Your task to perform on an android device: open app "Google Keep" Image 0: 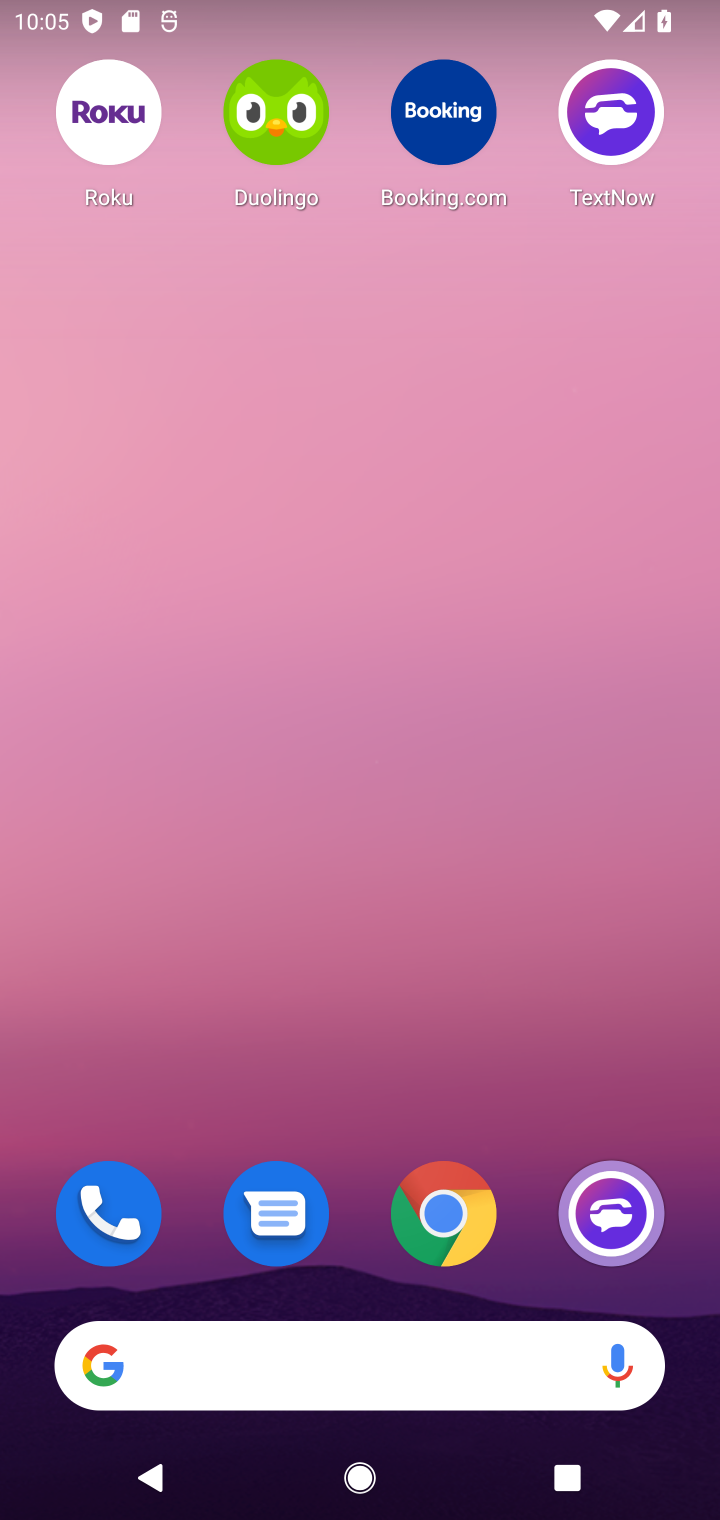
Step 0: drag from (379, 1295) to (451, 4)
Your task to perform on an android device: open app "Google Keep" Image 1: 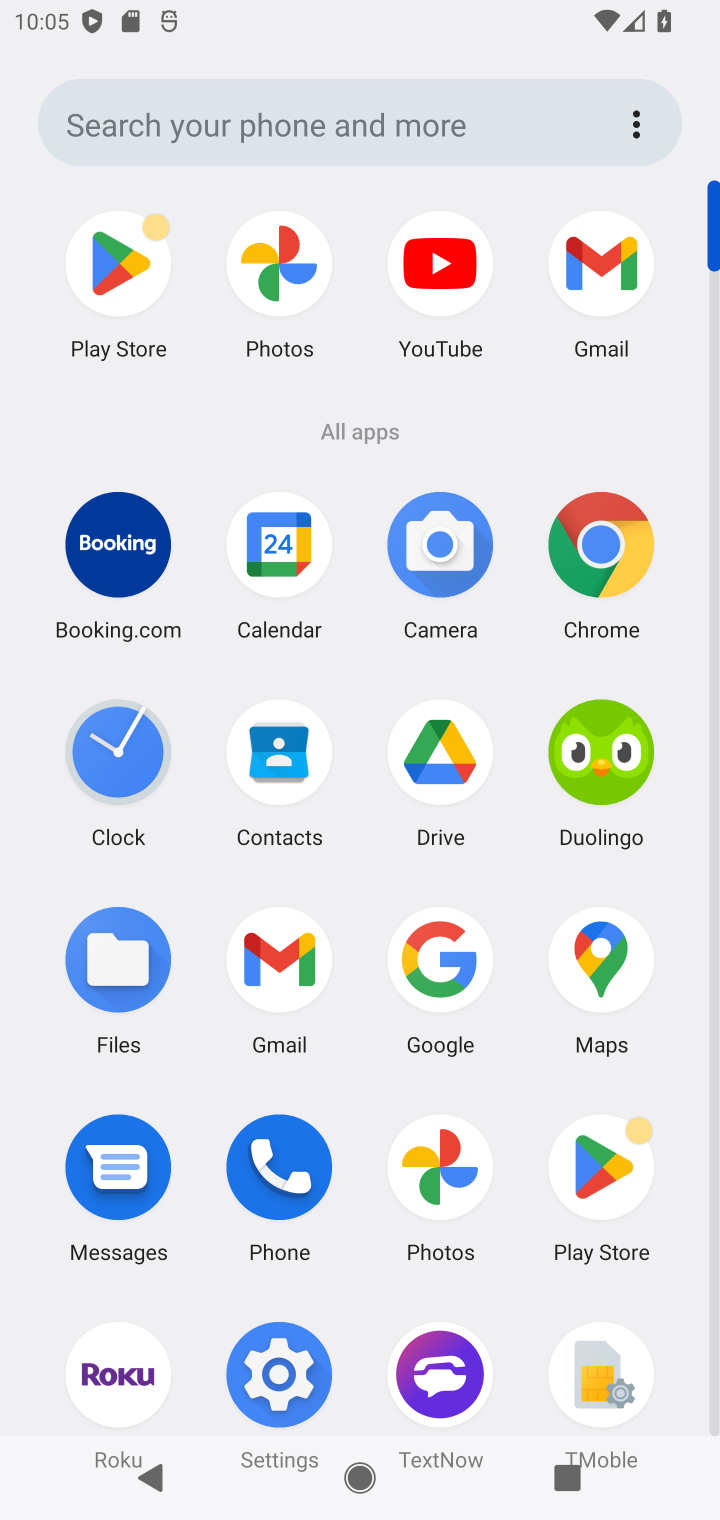
Step 1: click (137, 289)
Your task to perform on an android device: open app "Google Keep" Image 2: 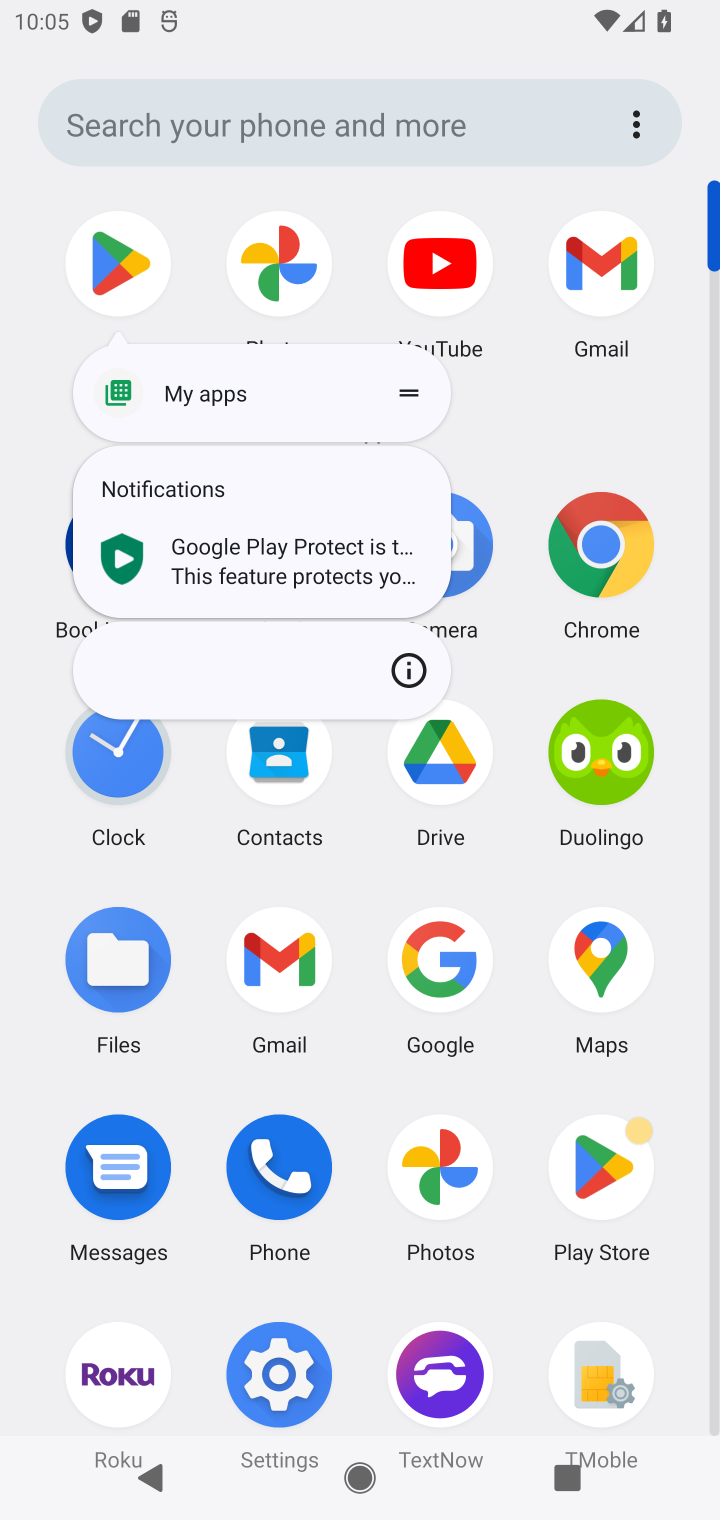
Step 2: click (139, 285)
Your task to perform on an android device: open app "Google Keep" Image 3: 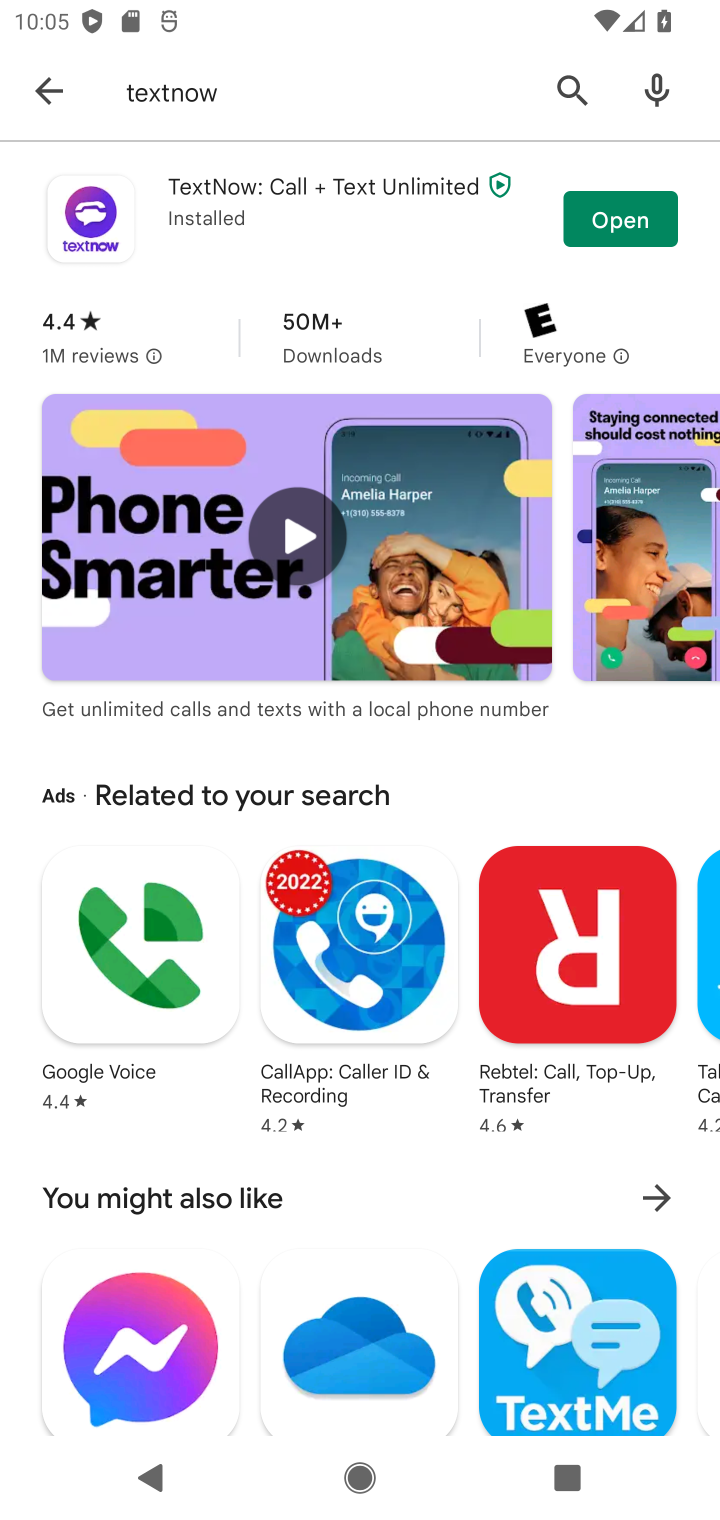
Step 3: click (245, 99)
Your task to perform on an android device: open app "Google Keep" Image 4: 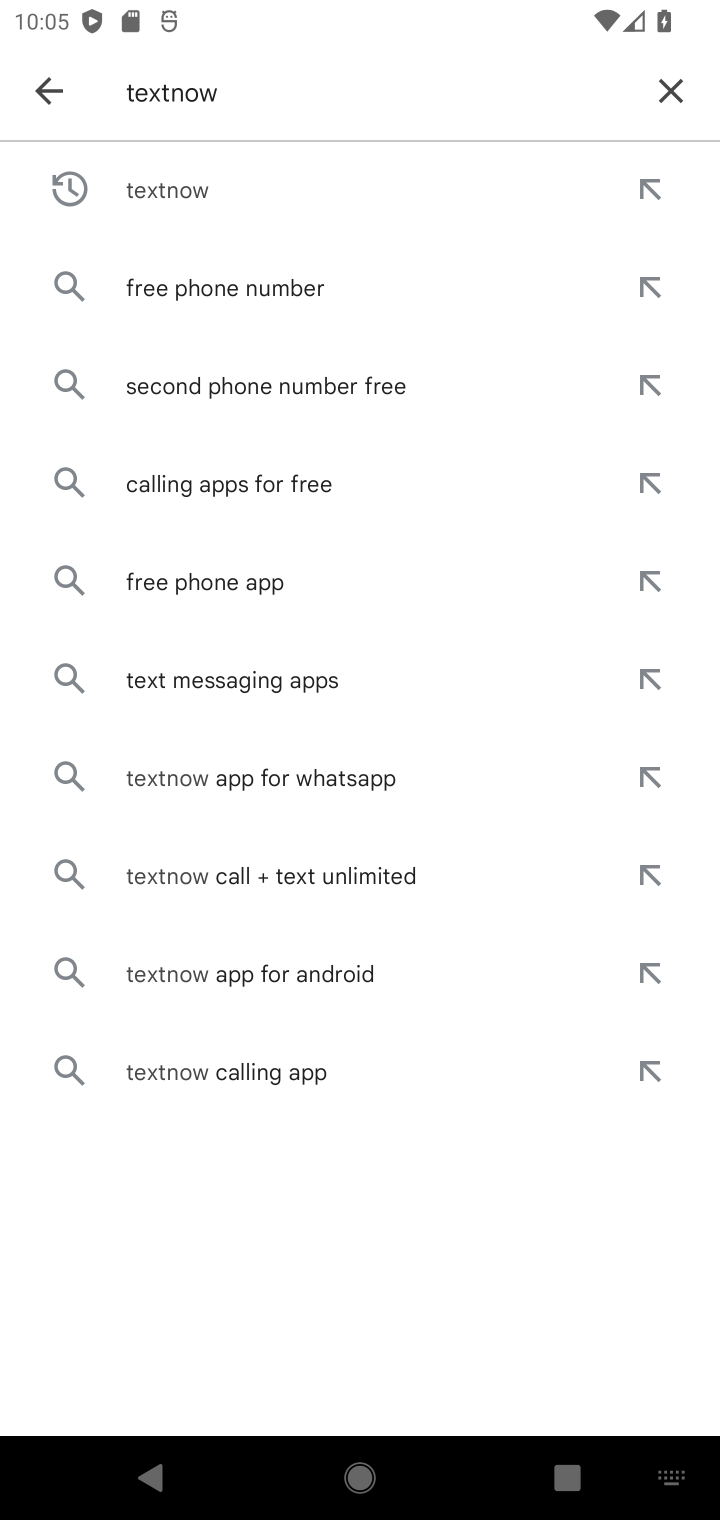
Step 4: click (655, 88)
Your task to perform on an android device: open app "Google Keep" Image 5: 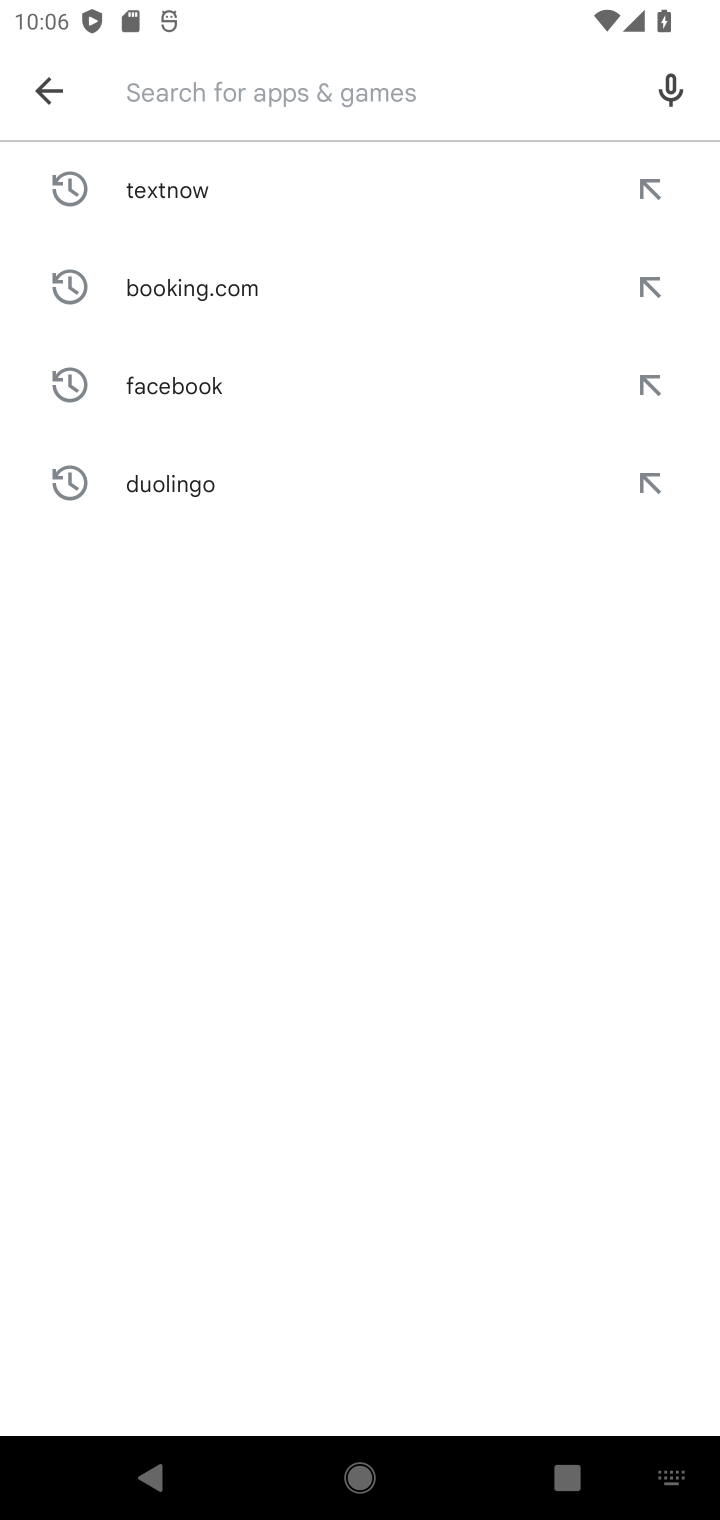
Step 5: type "google keep"
Your task to perform on an android device: open app "Google Keep" Image 6: 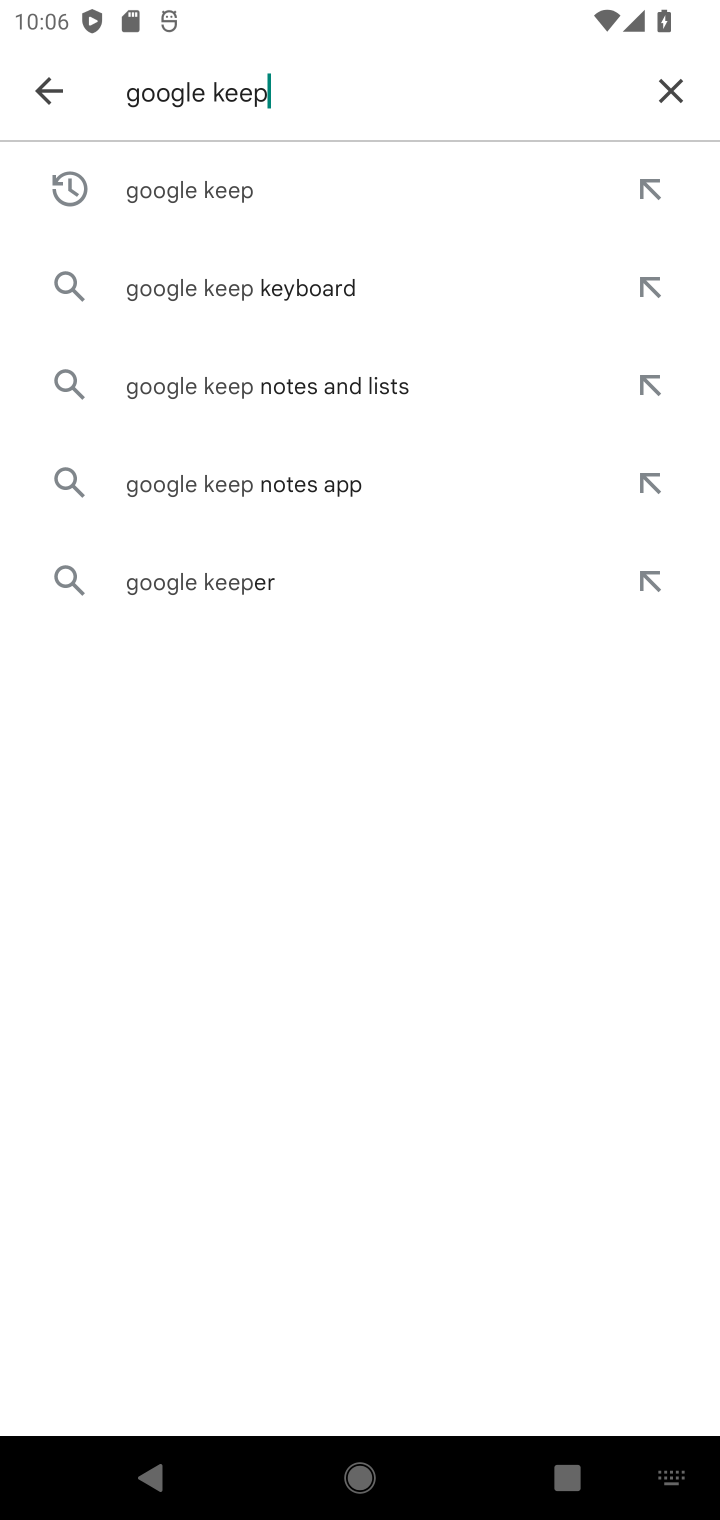
Step 6: click (296, 185)
Your task to perform on an android device: open app "Google Keep" Image 7: 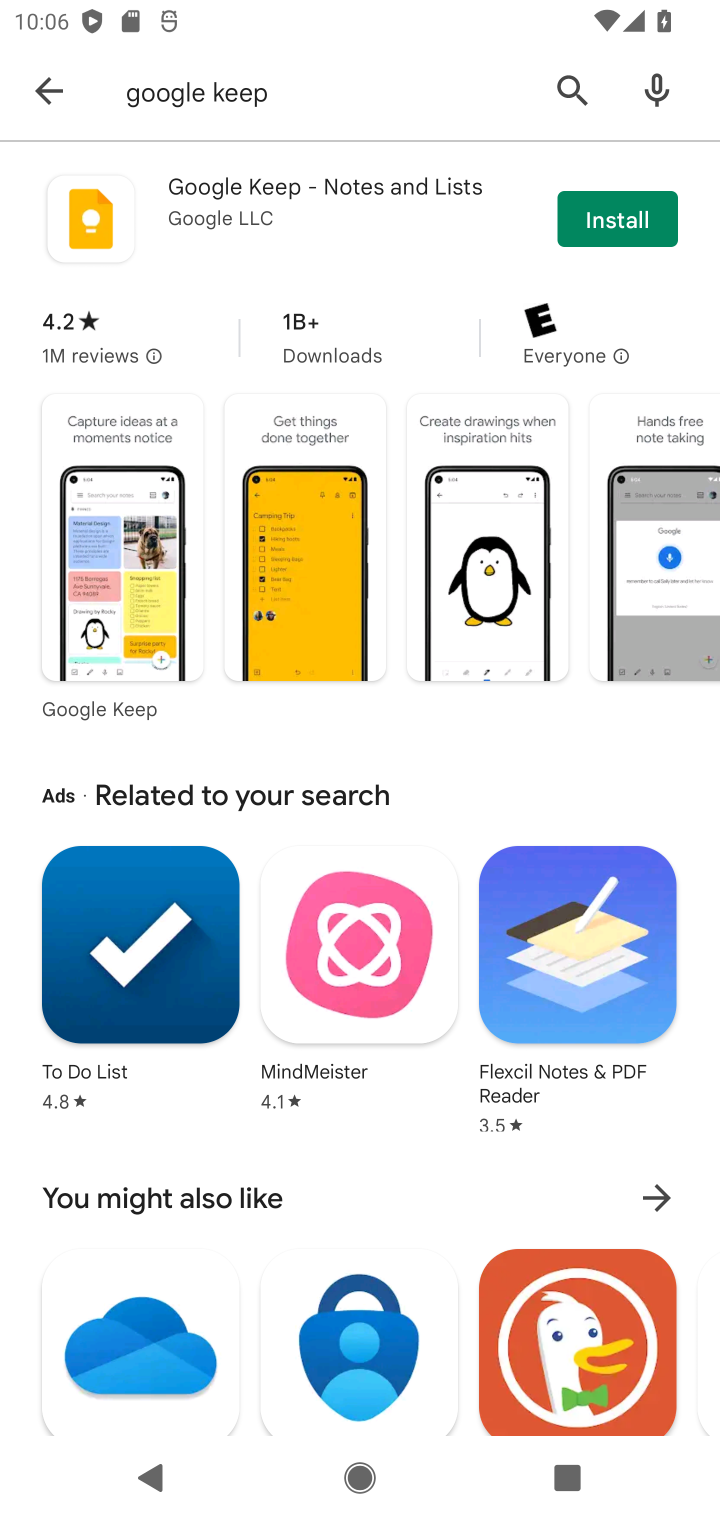
Step 7: task complete